Your task to perform on an android device: Open the calendar and show me this week's events Image 0: 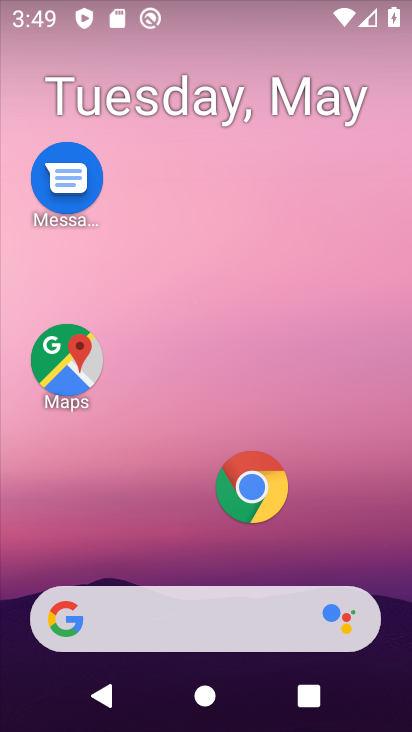
Step 0: drag from (50, 15) to (100, 4)
Your task to perform on an android device: Open the calendar and show me this week's events Image 1: 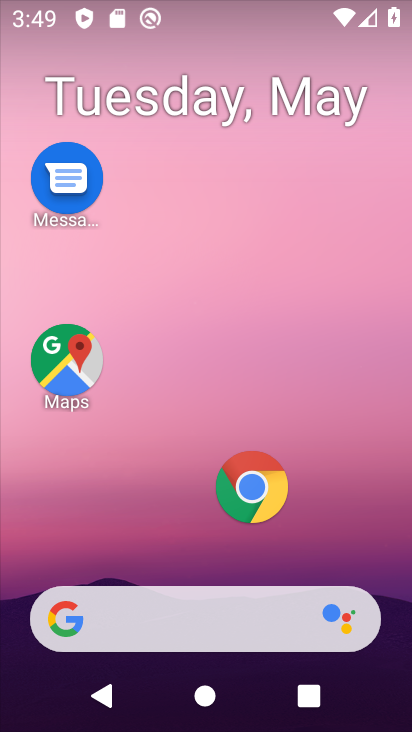
Step 1: drag from (181, 239) to (141, 25)
Your task to perform on an android device: Open the calendar and show me this week's events Image 2: 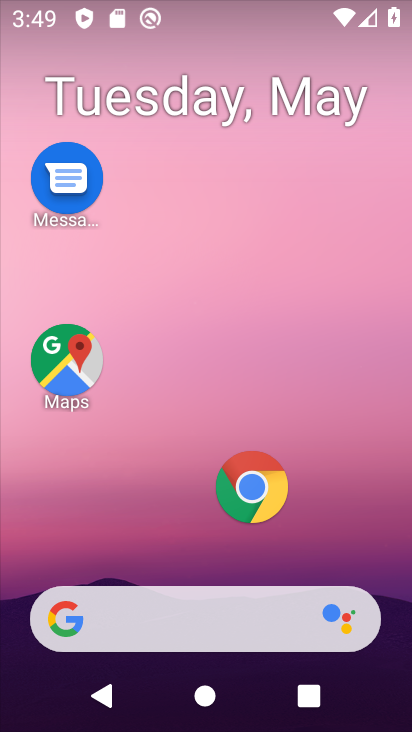
Step 2: drag from (197, 510) to (169, 43)
Your task to perform on an android device: Open the calendar and show me this week's events Image 3: 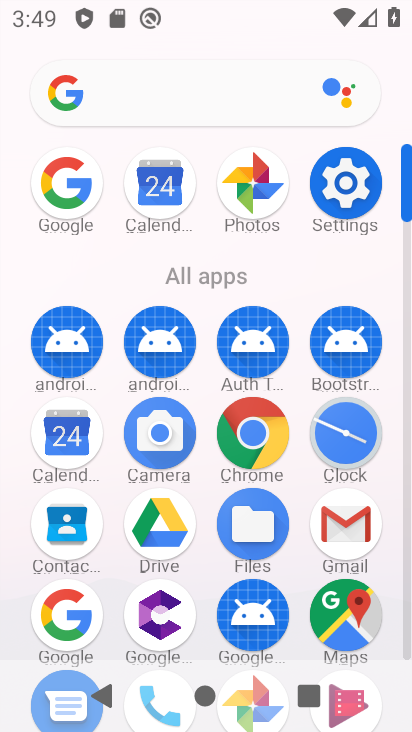
Step 3: click (145, 229)
Your task to perform on an android device: Open the calendar and show me this week's events Image 4: 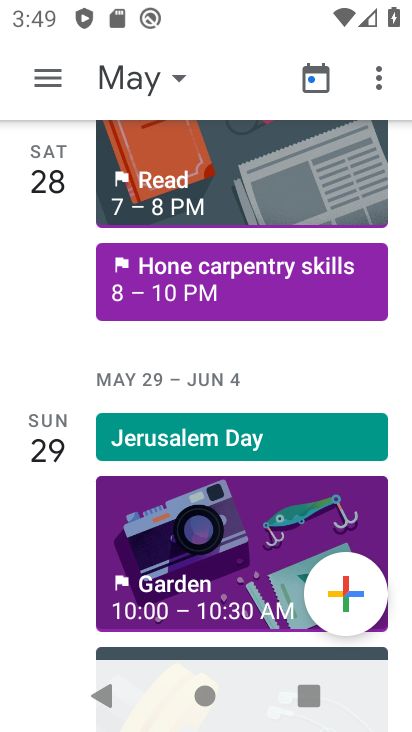
Step 4: click (103, 98)
Your task to perform on an android device: Open the calendar and show me this week's events Image 5: 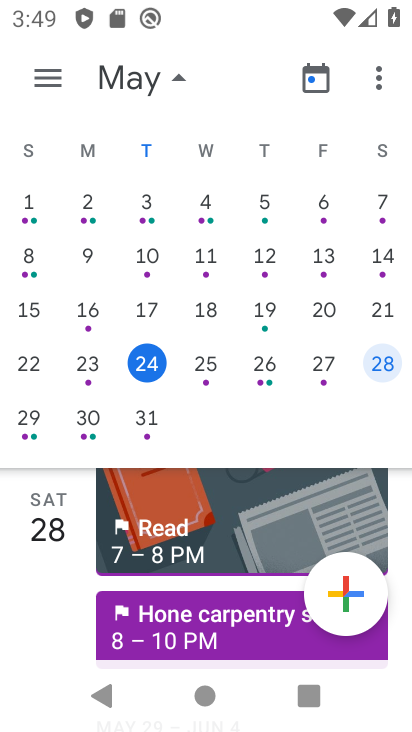
Step 5: click (50, 81)
Your task to perform on an android device: Open the calendar and show me this week's events Image 6: 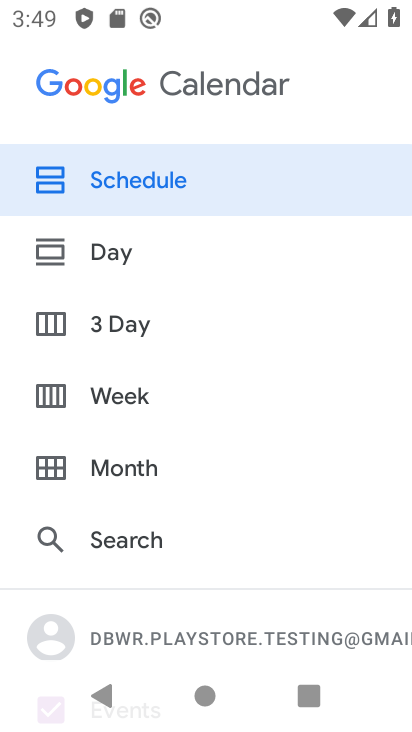
Step 6: click (118, 410)
Your task to perform on an android device: Open the calendar and show me this week's events Image 7: 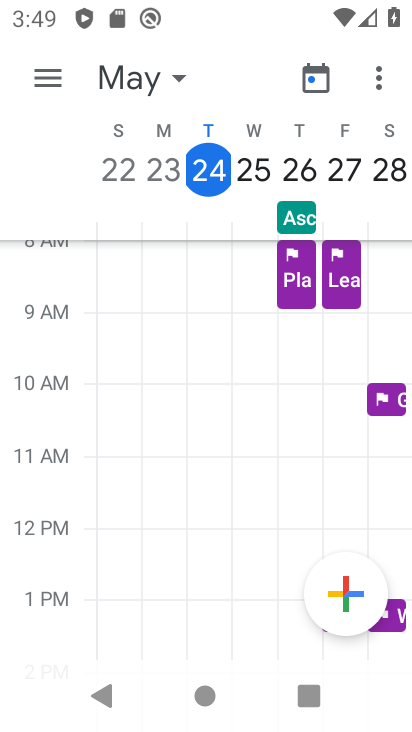
Step 7: task complete